Your task to perform on an android device: Clear the shopping cart on target. Add "logitech g pro" to the cart on target Image 0: 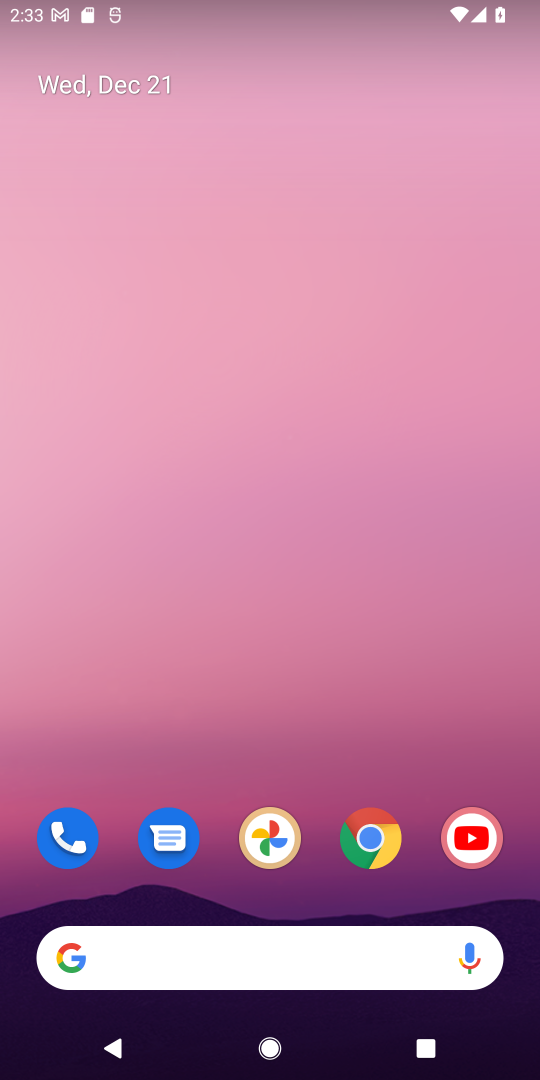
Step 0: click (387, 852)
Your task to perform on an android device: Clear the shopping cart on target. Add "logitech g pro" to the cart on target Image 1: 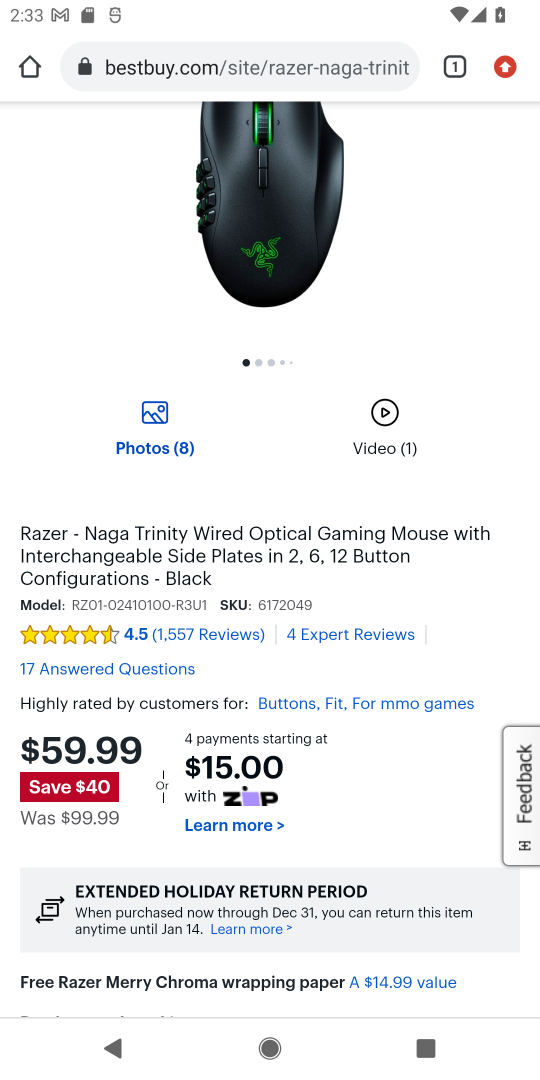
Step 1: task complete